Your task to perform on an android device: change your default location settings in chrome Image 0: 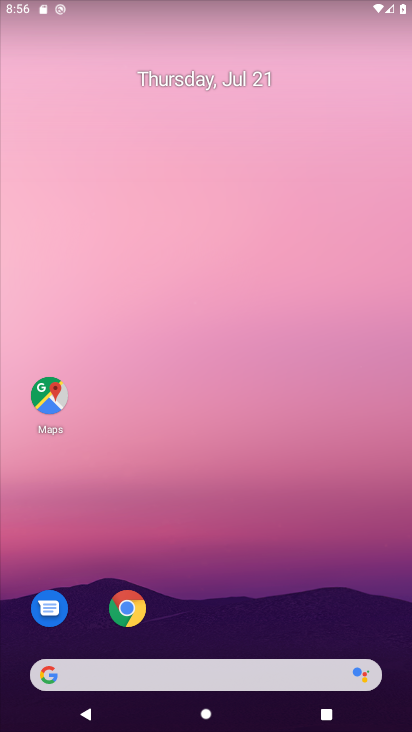
Step 0: drag from (202, 632) to (131, 616)
Your task to perform on an android device: change your default location settings in chrome Image 1: 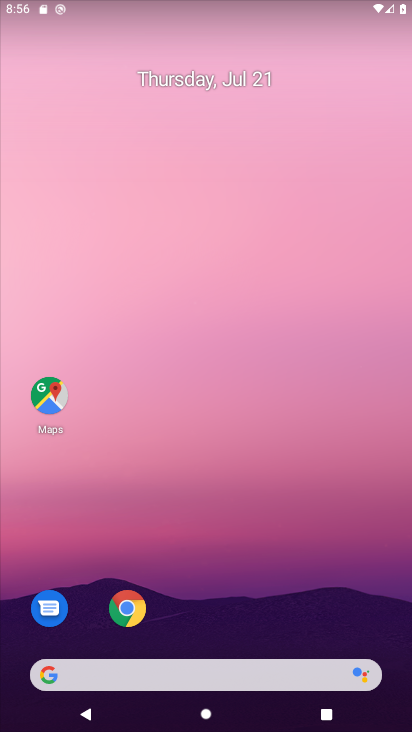
Step 1: click (131, 616)
Your task to perform on an android device: change your default location settings in chrome Image 2: 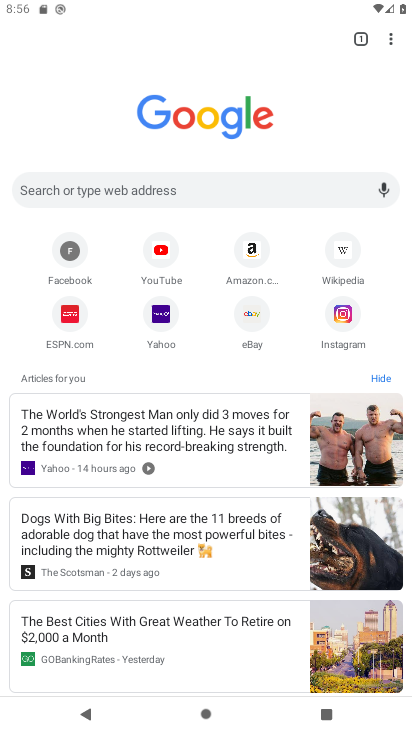
Step 2: click (389, 41)
Your task to perform on an android device: change your default location settings in chrome Image 3: 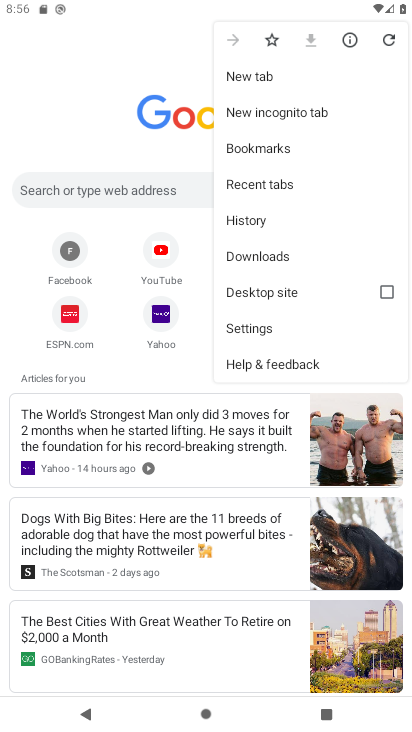
Step 3: click (237, 331)
Your task to perform on an android device: change your default location settings in chrome Image 4: 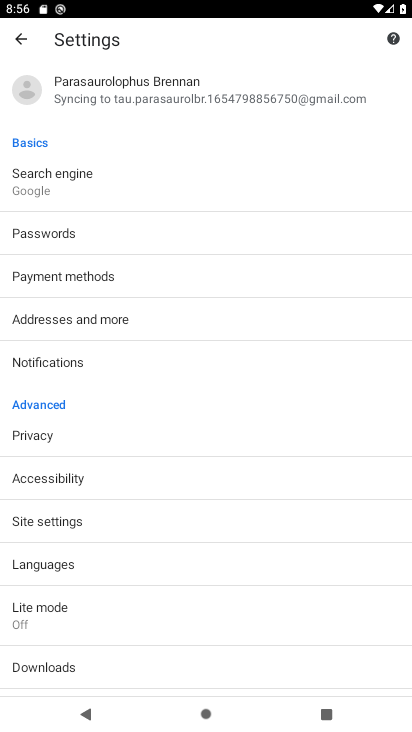
Step 4: click (64, 520)
Your task to perform on an android device: change your default location settings in chrome Image 5: 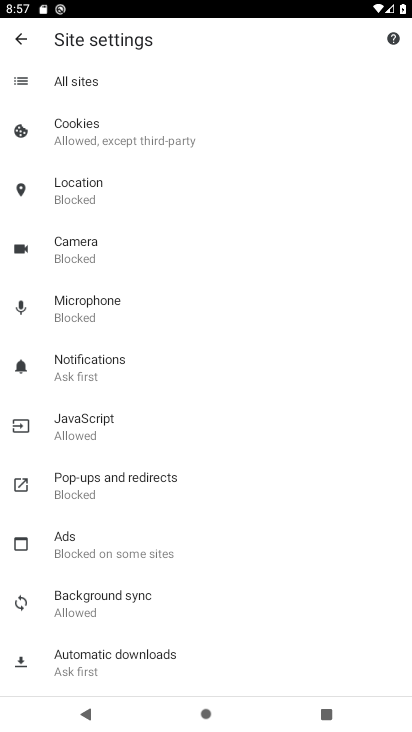
Step 5: click (63, 198)
Your task to perform on an android device: change your default location settings in chrome Image 6: 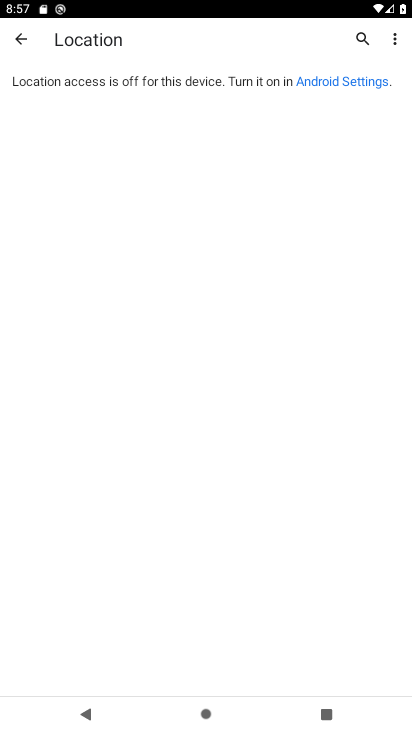
Step 6: click (374, 75)
Your task to perform on an android device: change your default location settings in chrome Image 7: 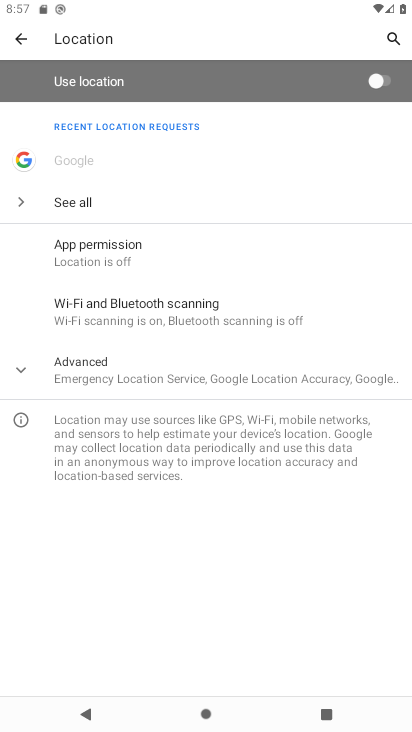
Step 7: click (387, 83)
Your task to perform on an android device: change your default location settings in chrome Image 8: 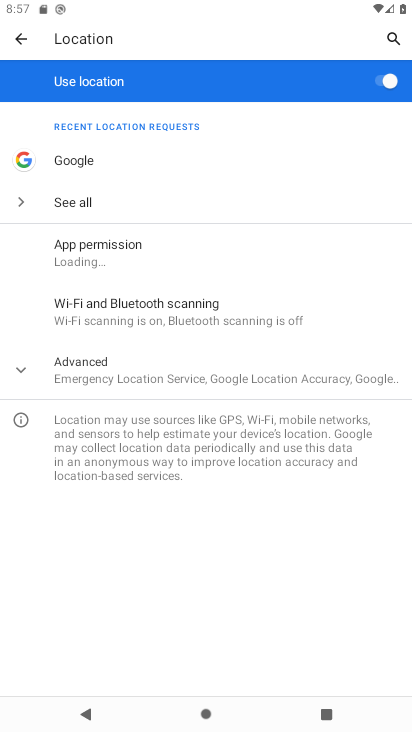
Step 8: task complete